Your task to perform on an android device: delete browsing data in the chrome app Image 0: 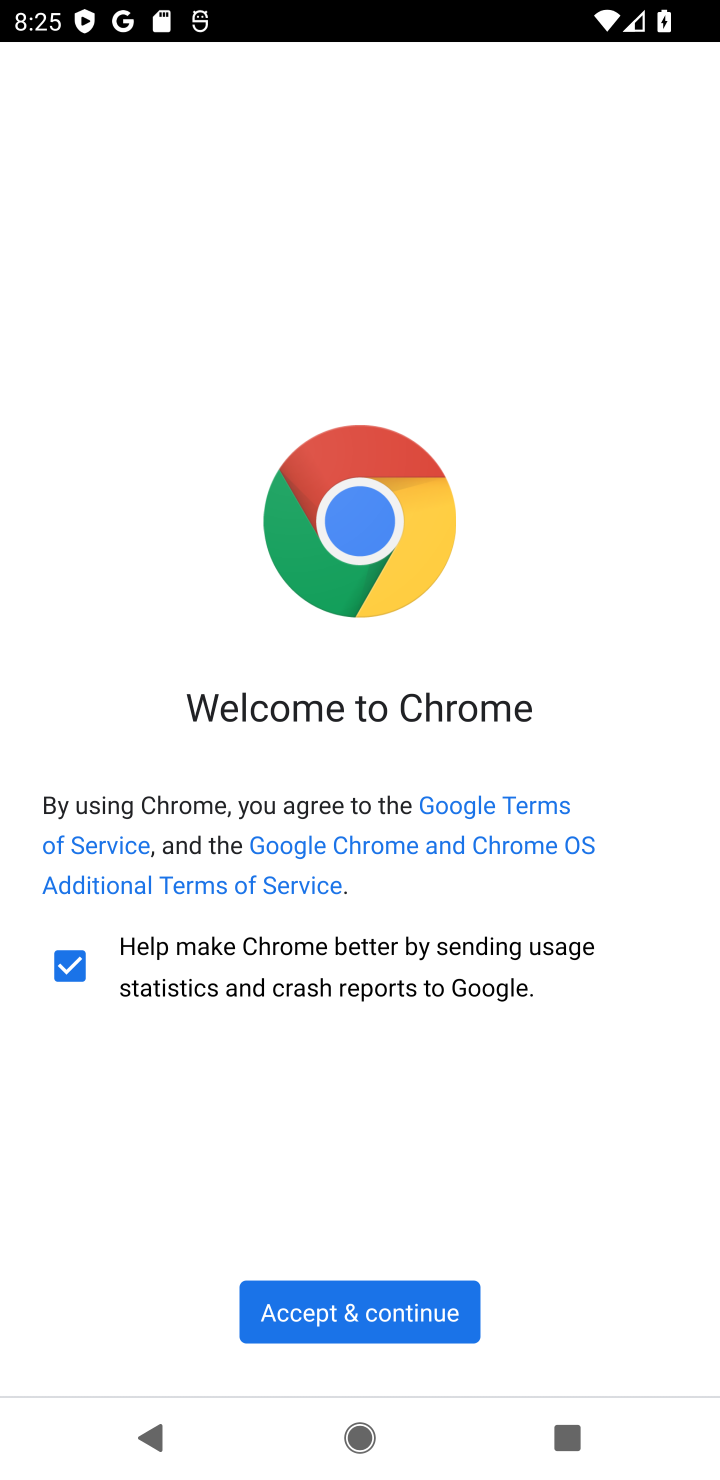
Step 0: press home button
Your task to perform on an android device: delete browsing data in the chrome app Image 1: 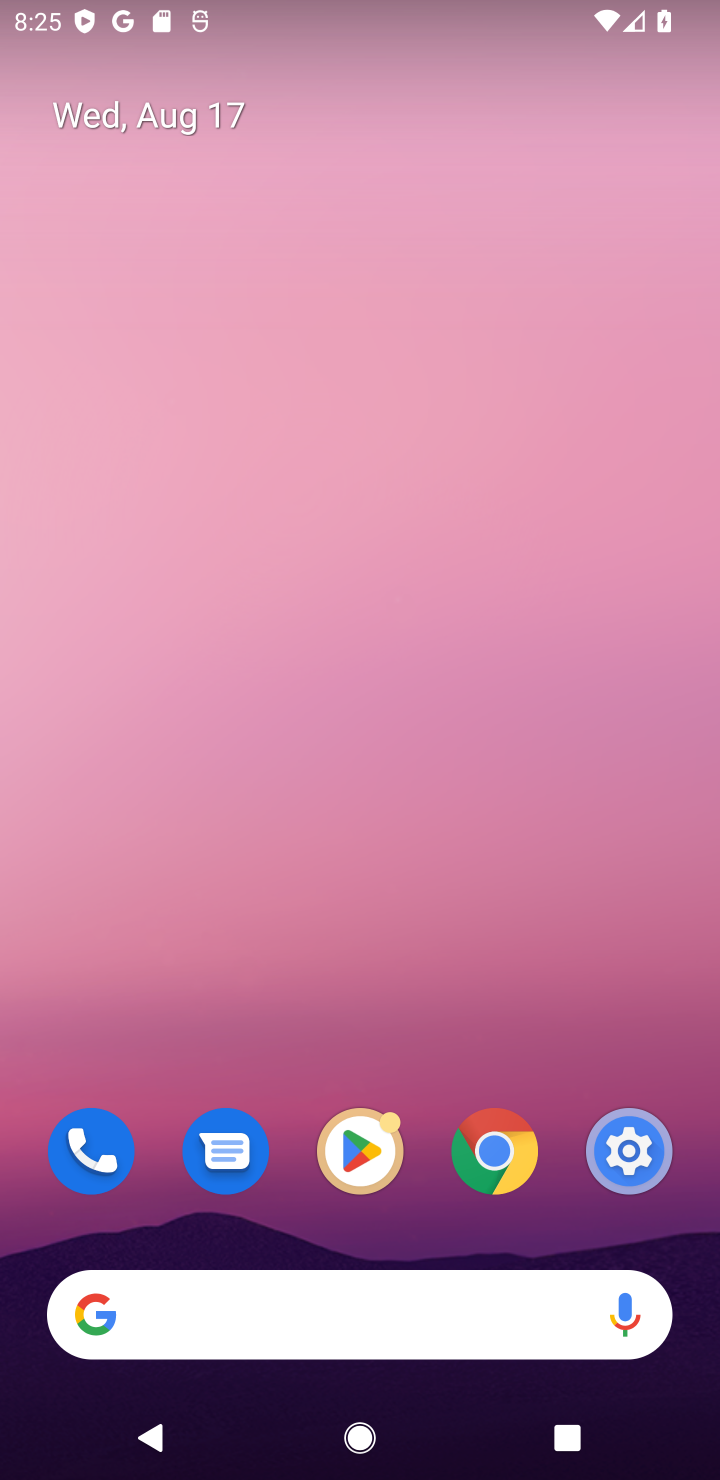
Step 1: click (480, 1149)
Your task to perform on an android device: delete browsing data in the chrome app Image 2: 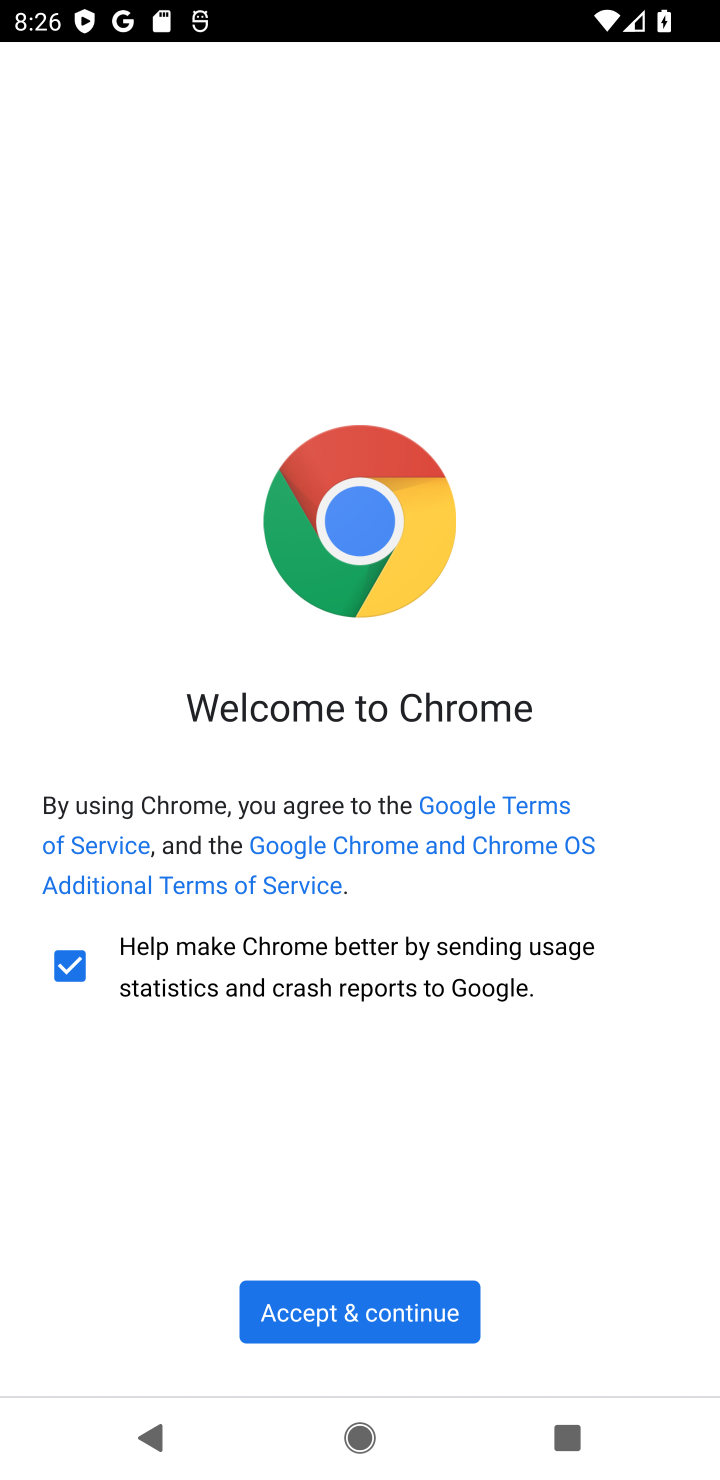
Step 2: click (306, 1325)
Your task to perform on an android device: delete browsing data in the chrome app Image 3: 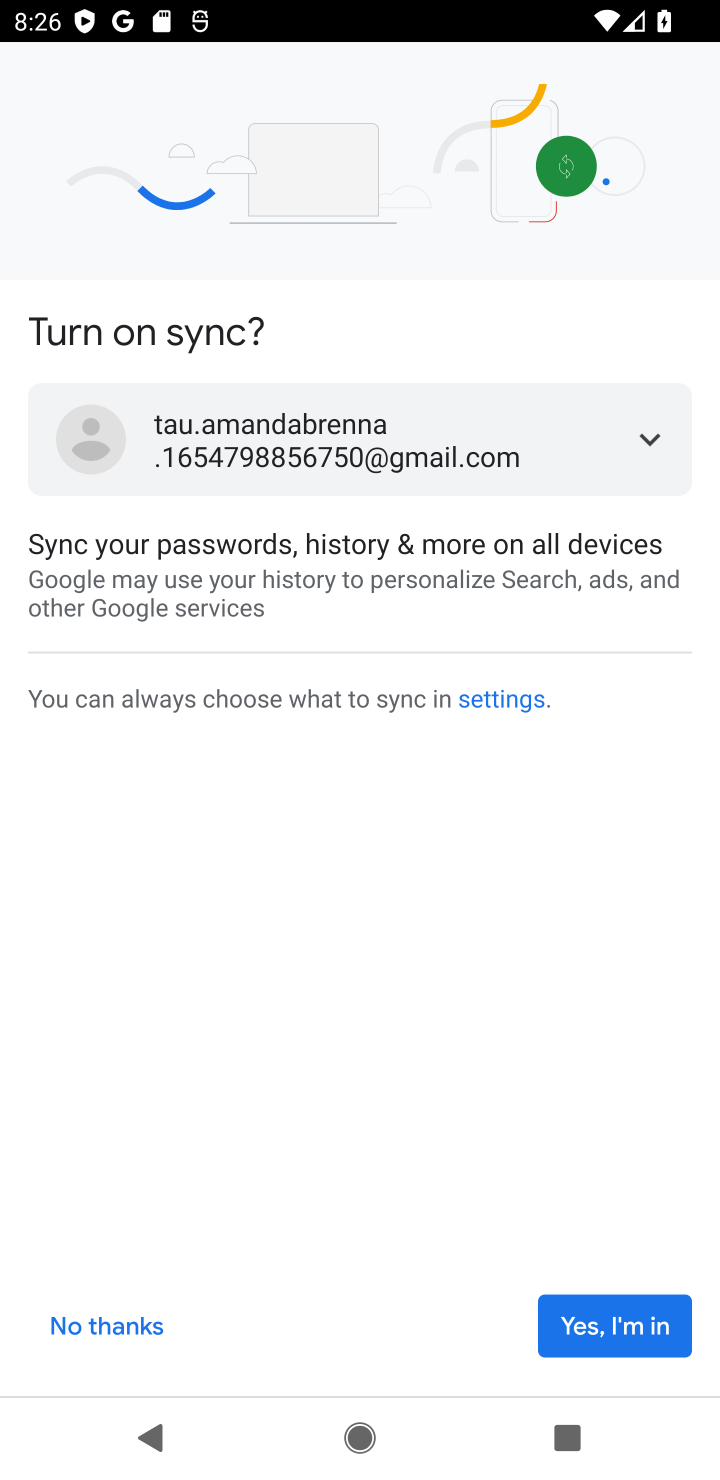
Step 3: click (651, 1334)
Your task to perform on an android device: delete browsing data in the chrome app Image 4: 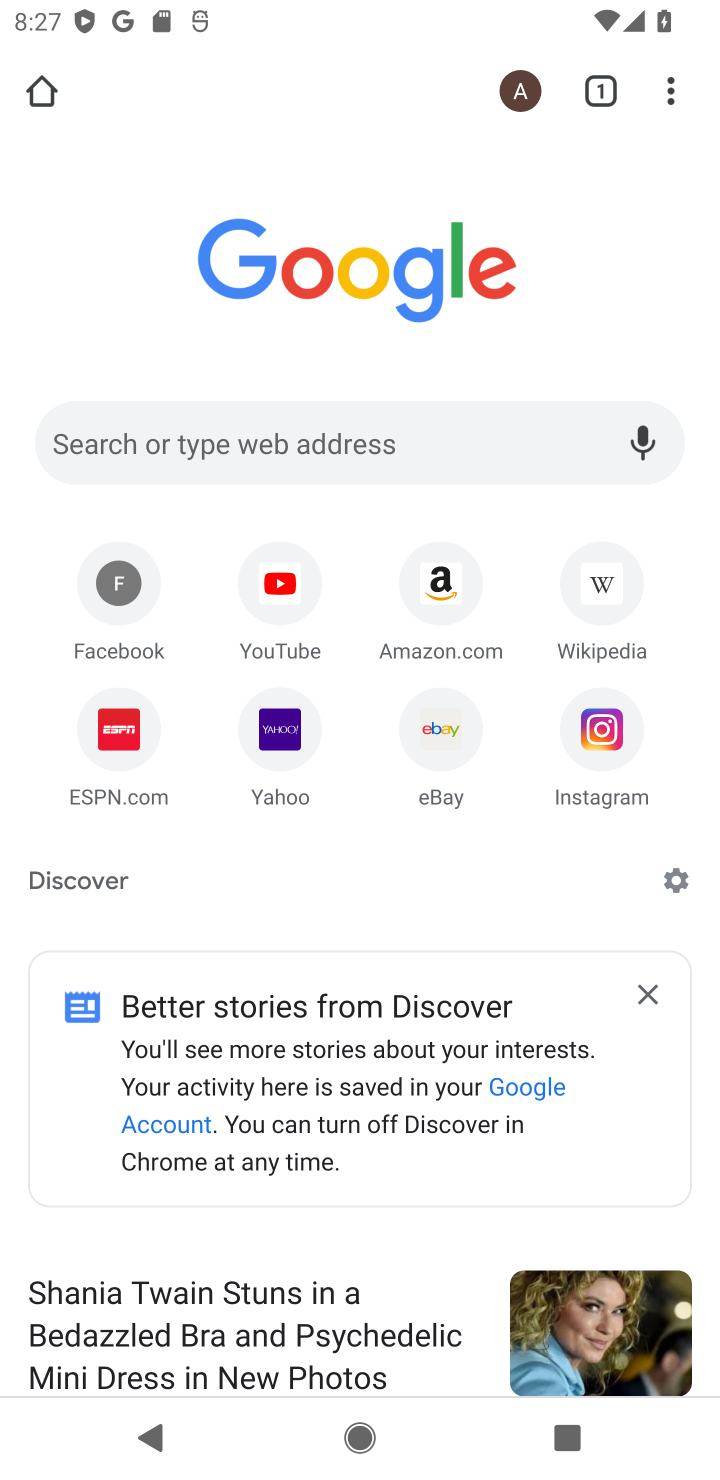
Step 4: click (654, 67)
Your task to perform on an android device: delete browsing data in the chrome app Image 5: 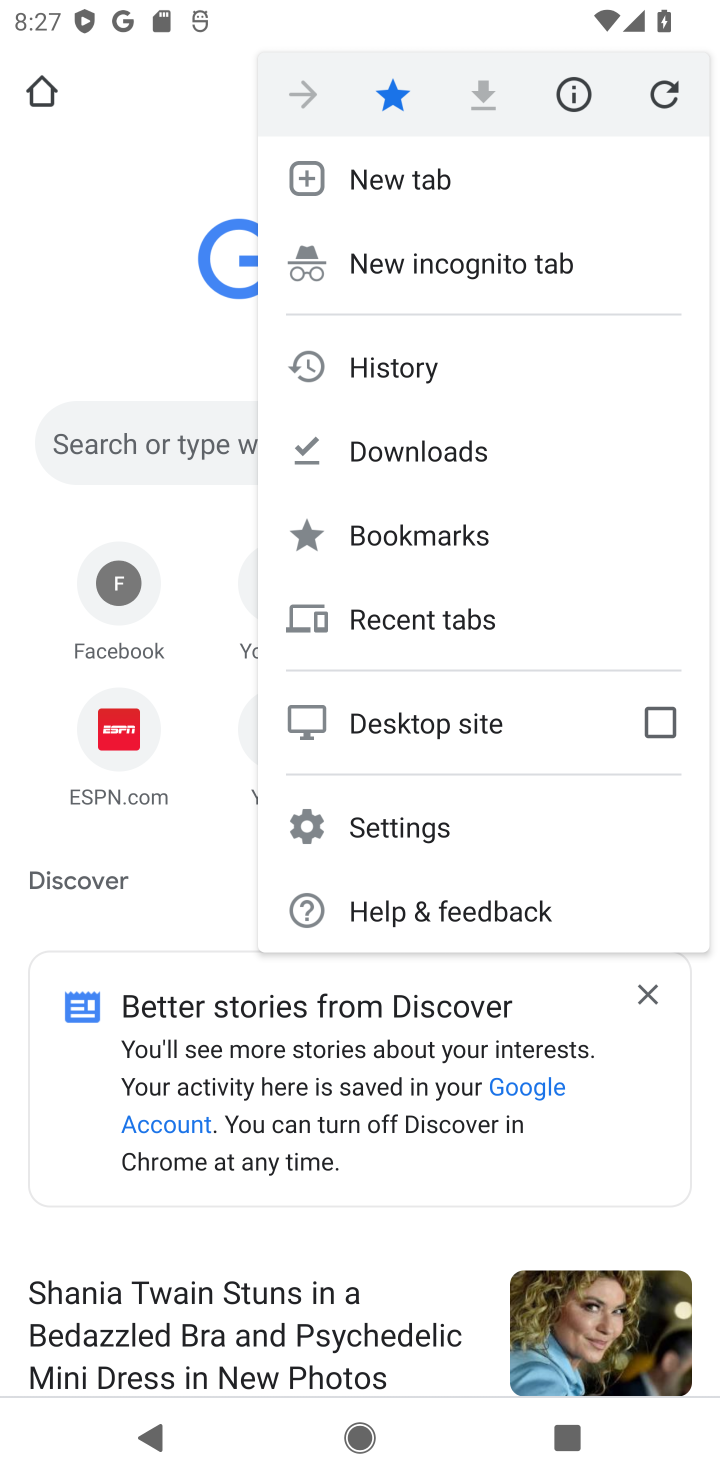
Step 5: click (382, 368)
Your task to perform on an android device: delete browsing data in the chrome app Image 6: 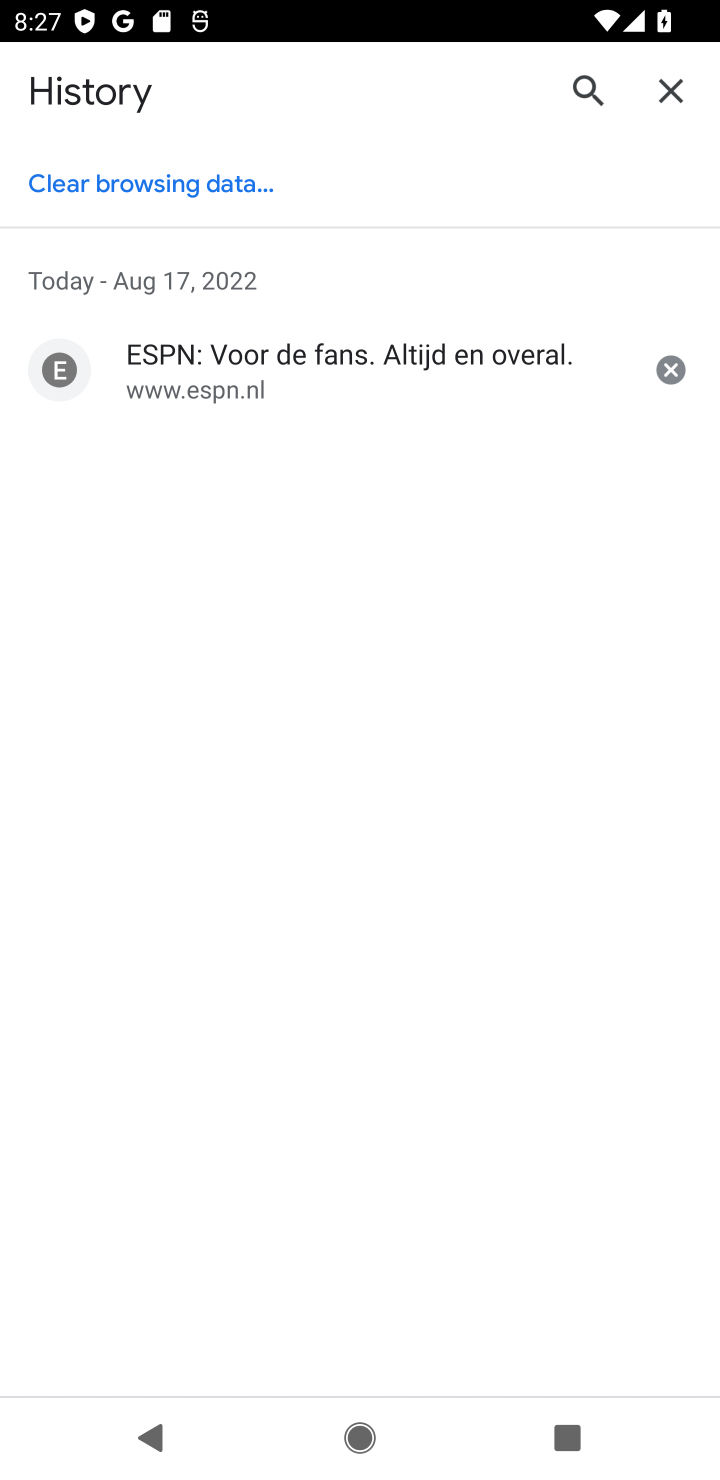
Step 6: click (112, 187)
Your task to perform on an android device: delete browsing data in the chrome app Image 7: 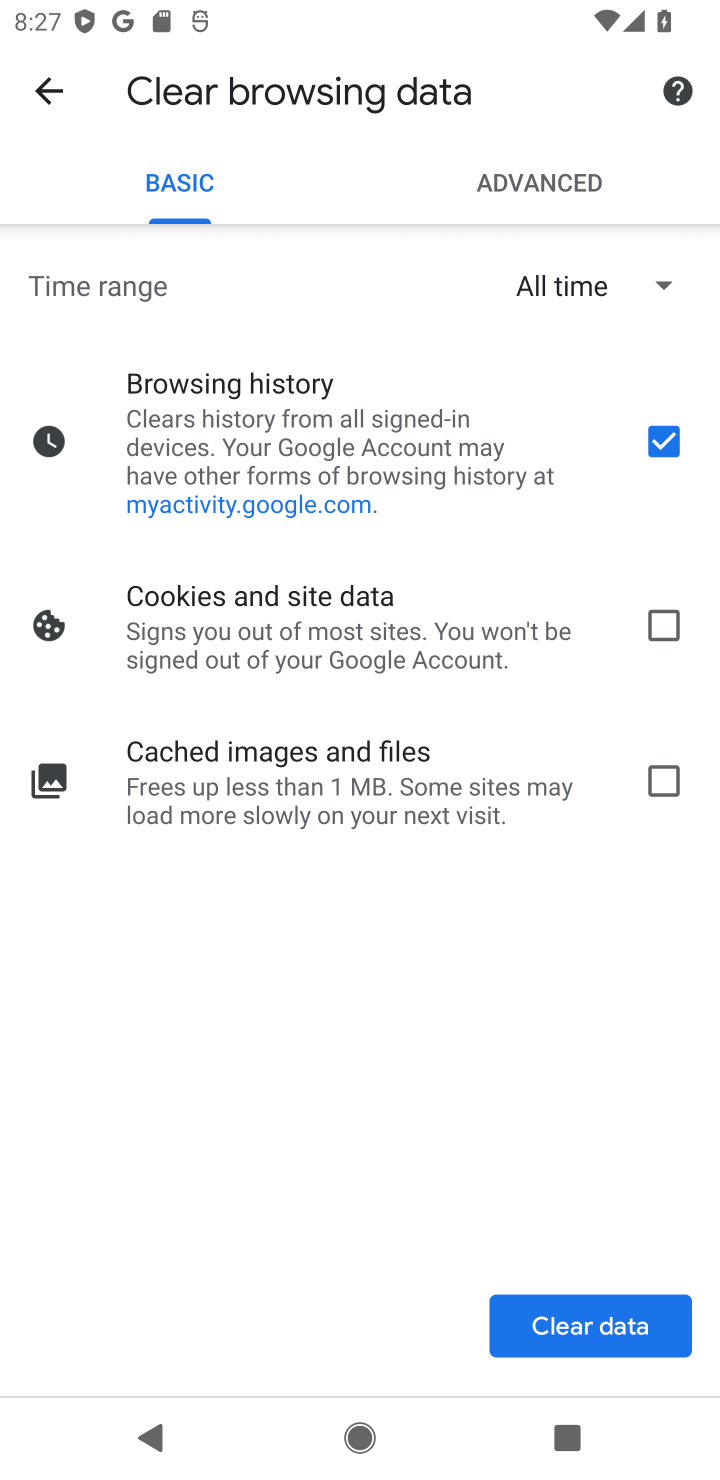
Step 7: click (661, 632)
Your task to perform on an android device: delete browsing data in the chrome app Image 8: 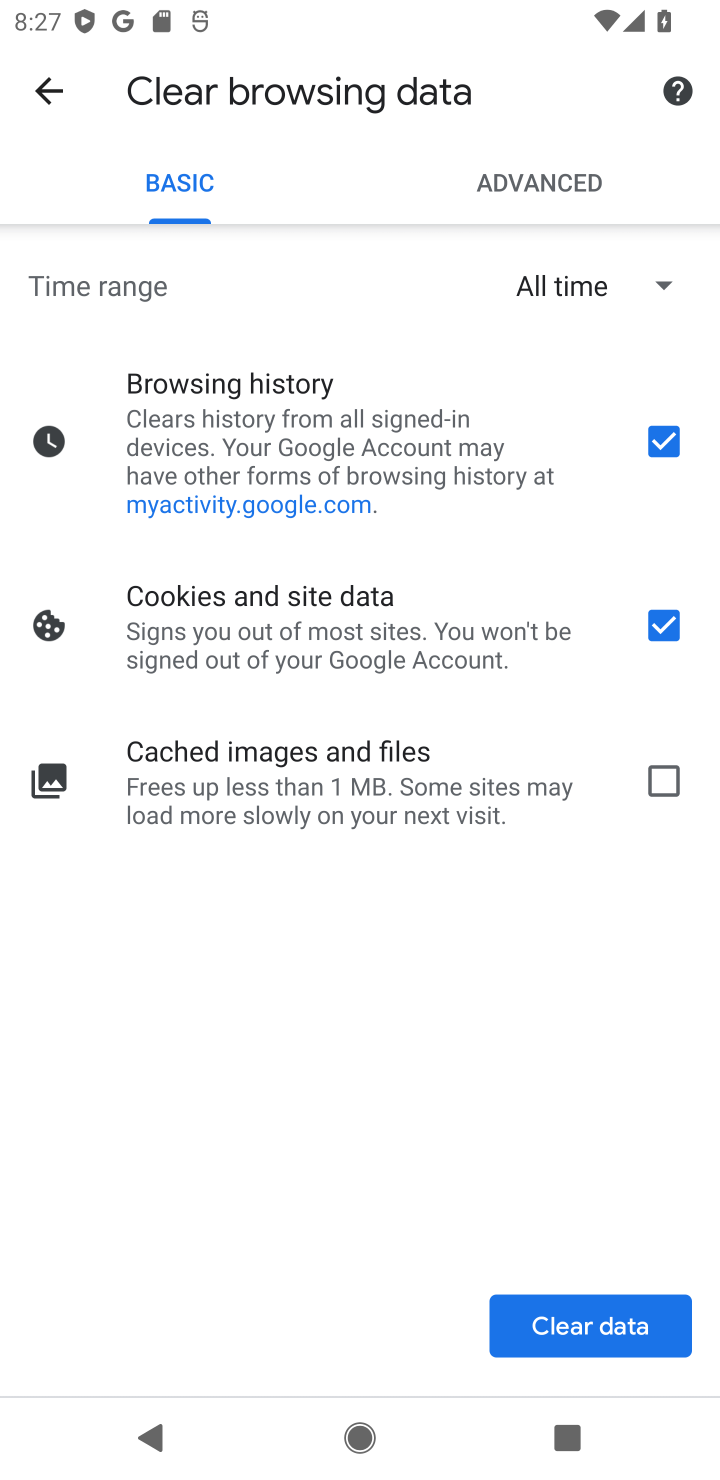
Step 8: click (661, 777)
Your task to perform on an android device: delete browsing data in the chrome app Image 9: 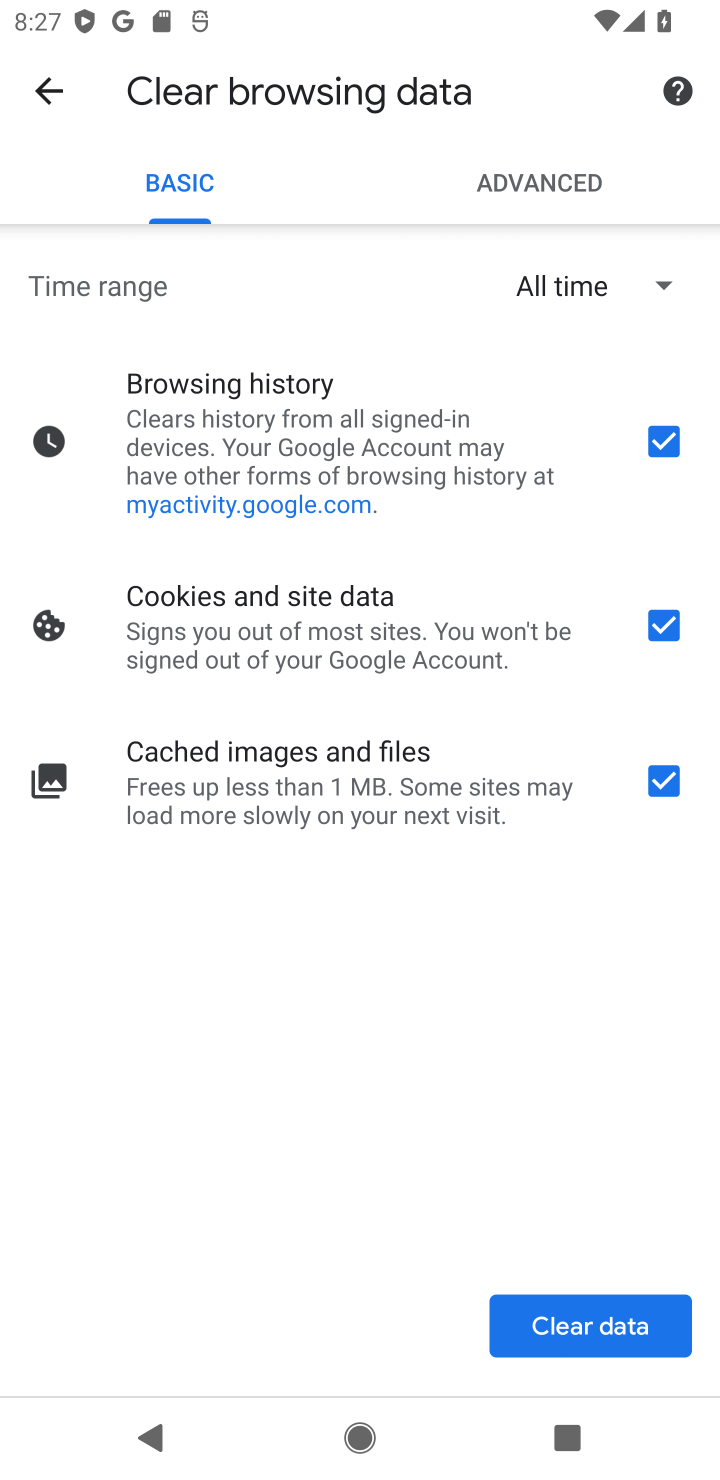
Step 9: click (587, 1319)
Your task to perform on an android device: delete browsing data in the chrome app Image 10: 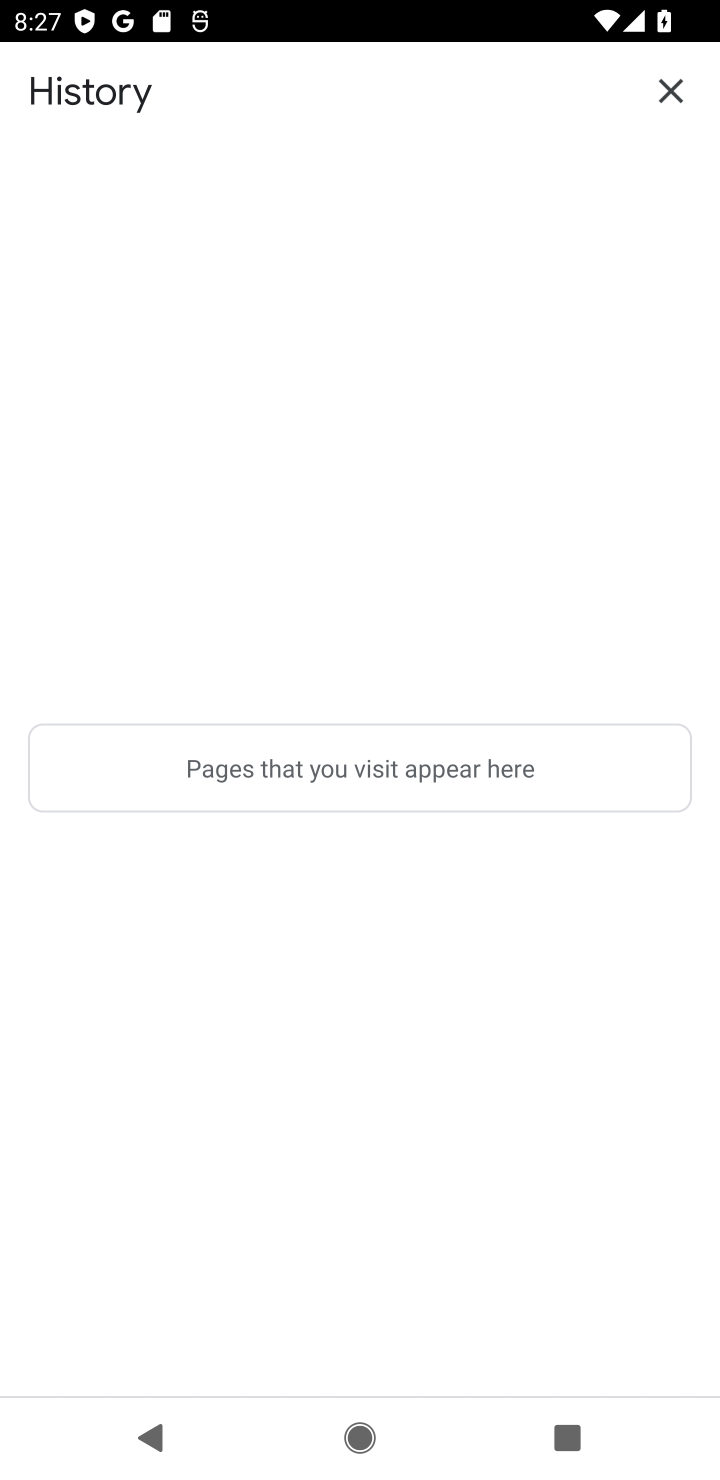
Step 10: task complete